Your task to perform on an android device: toggle wifi Image 0: 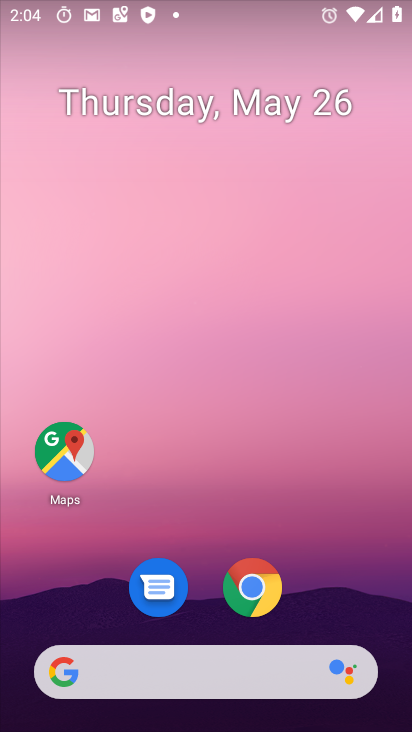
Step 0: drag from (219, 707) to (255, 107)
Your task to perform on an android device: toggle wifi Image 1: 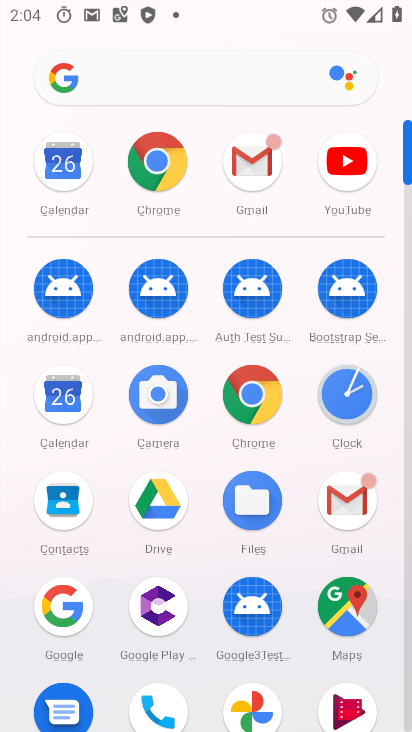
Step 1: drag from (110, 577) to (141, 400)
Your task to perform on an android device: toggle wifi Image 2: 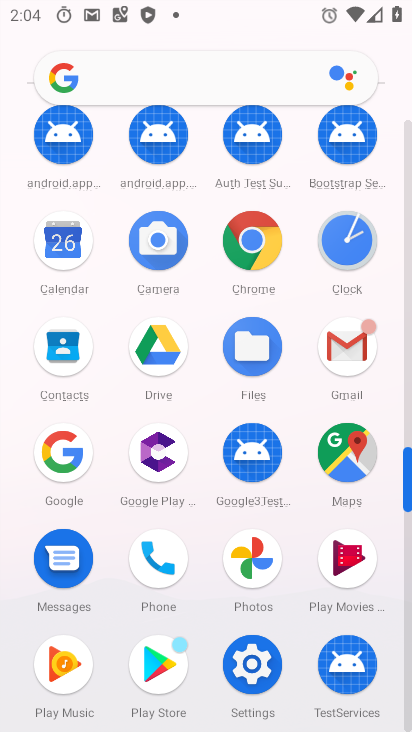
Step 2: click (264, 659)
Your task to perform on an android device: toggle wifi Image 3: 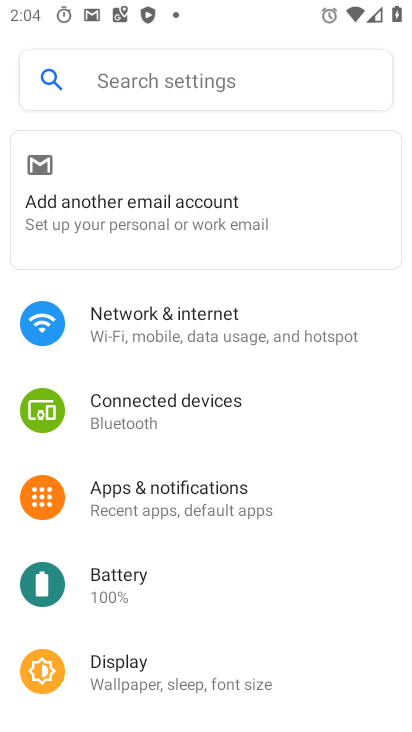
Step 3: click (152, 317)
Your task to perform on an android device: toggle wifi Image 4: 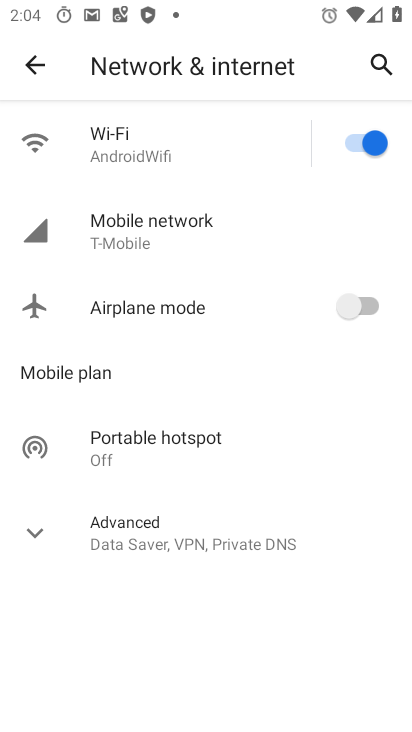
Step 4: click (152, 145)
Your task to perform on an android device: toggle wifi Image 5: 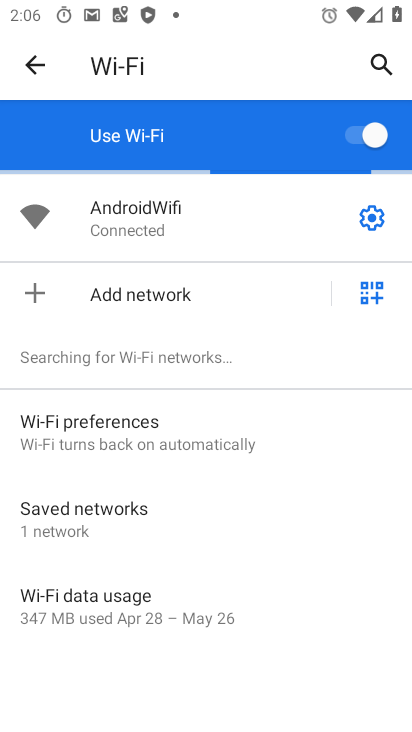
Step 5: task complete